Your task to perform on an android device: find photos in the google photos app Image 0: 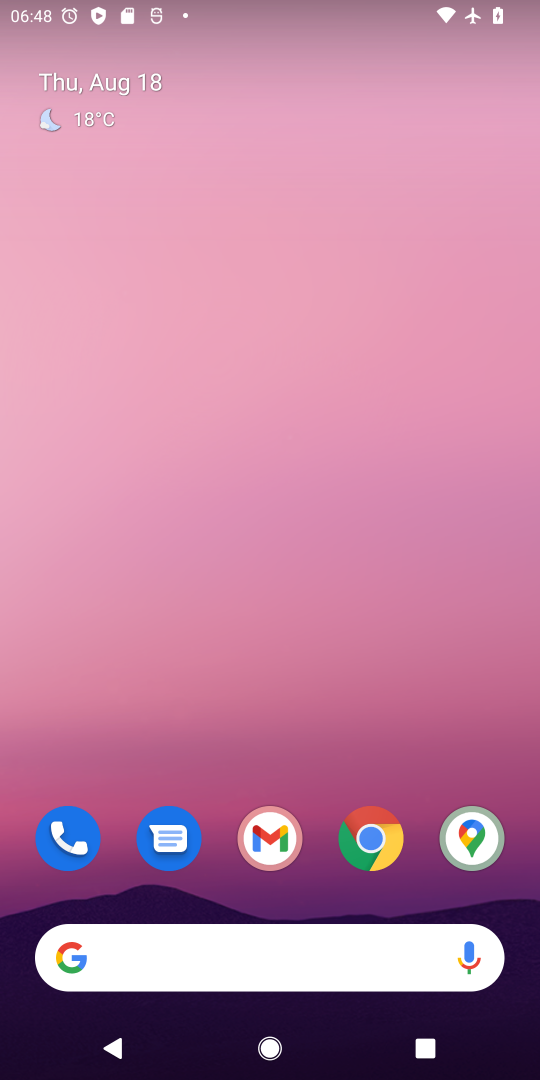
Step 0: press home button
Your task to perform on an android device: find photos in the google photos app Image 1: 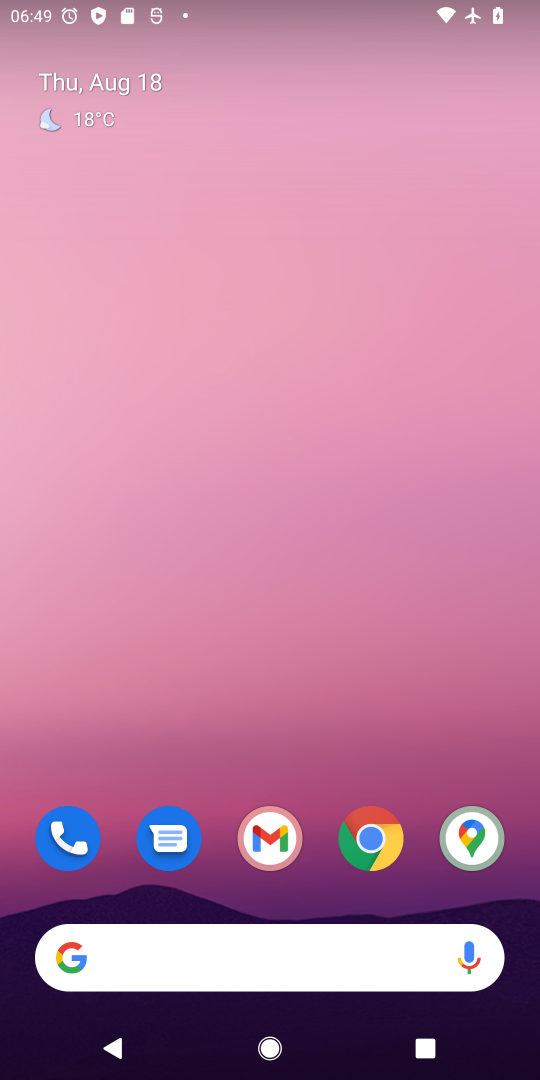
Step 1: drag from (323, 891) to (216, 2)
Your task to perform on an android device: find photos in the google photos app Image 2: 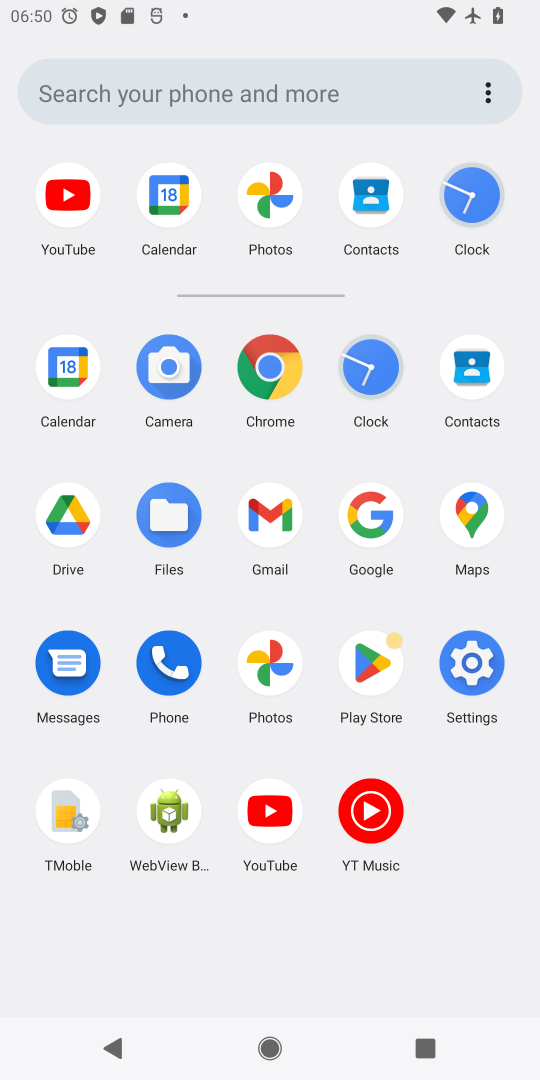
Step 2: click (266, 205)
Your task to perform on an android device: find photos in the google photos app Image 3: 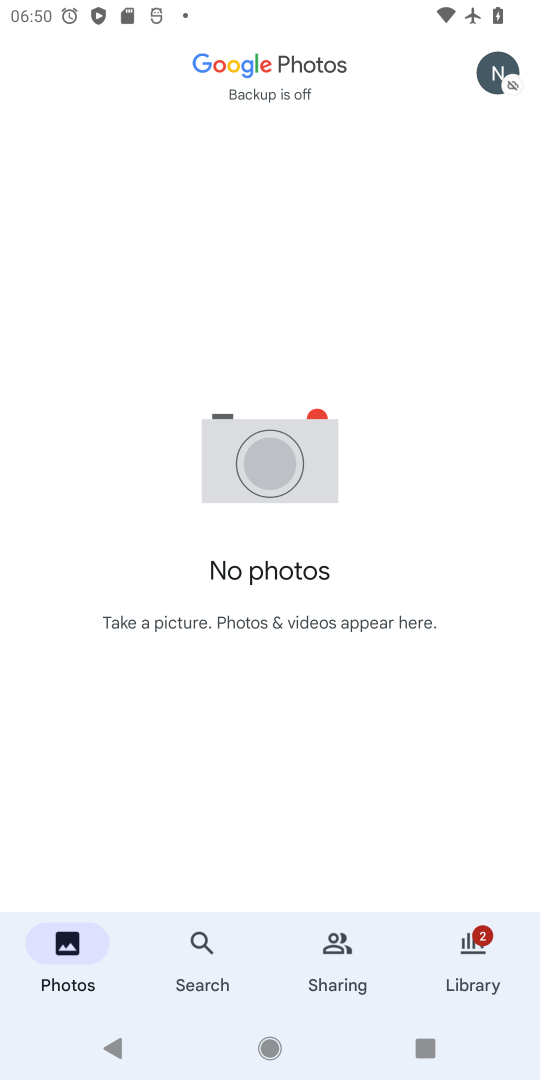
Step 3: task complete